Your task to perform on an android device: manage bookmarks in the chrome app Image 0: 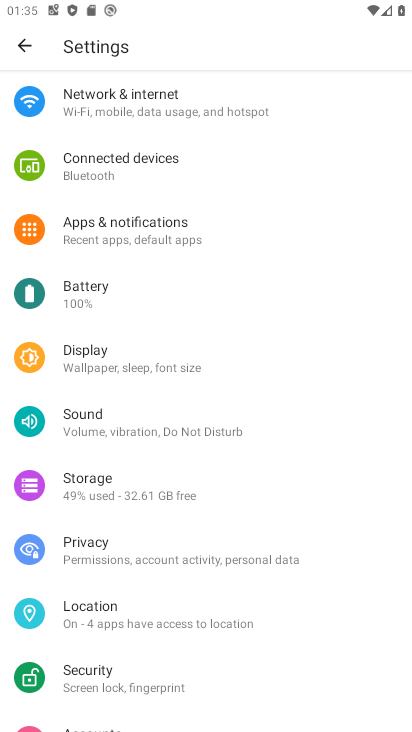
Step 0: press home button
Your task to perform on an android device: manage bookmarks in the chrome app Image 1: 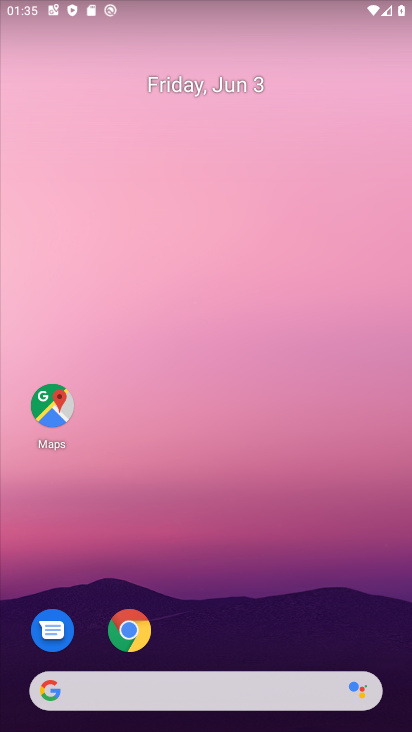
Step 1: click (151, 622)
Your task to perform on an android device: manage bookmarks in the chrome app Image 2: 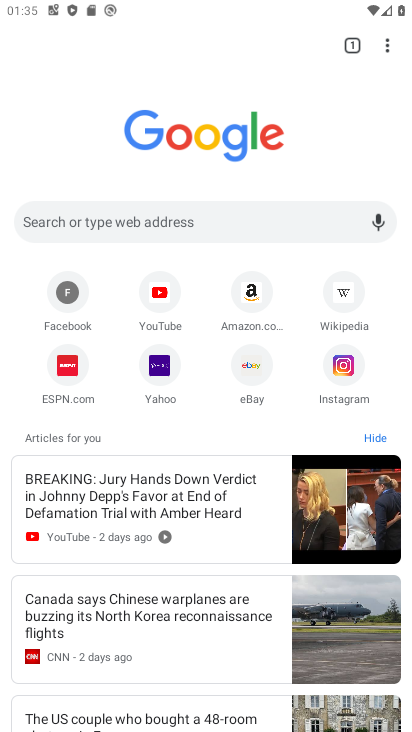
Step 2: click (389, 40)
Your task to perform on an android device: manage bookmarks in the chrome app Image 3: 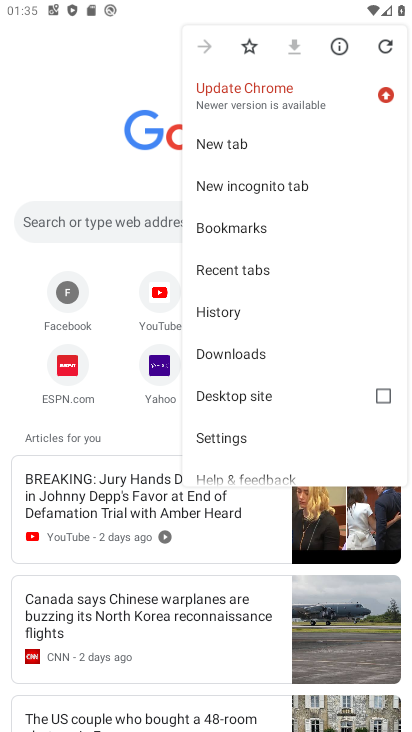
Step 3: click (332, 223)
Your task to perform on an android device: manage bookmarks in the chrome app Image 4: 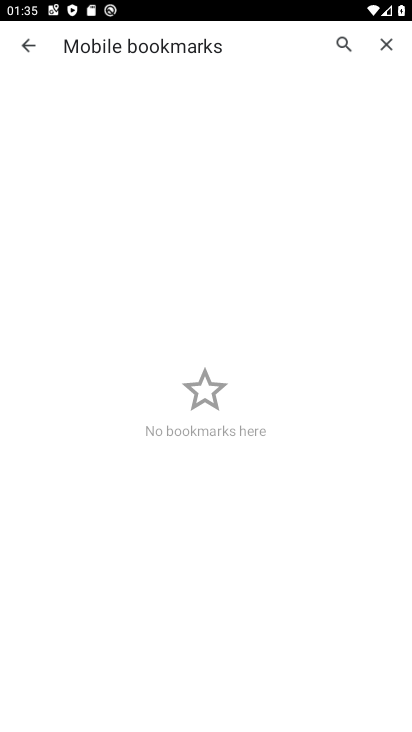
Step 4: task complete